Your task to perform on an android device: Open the map Image 0: 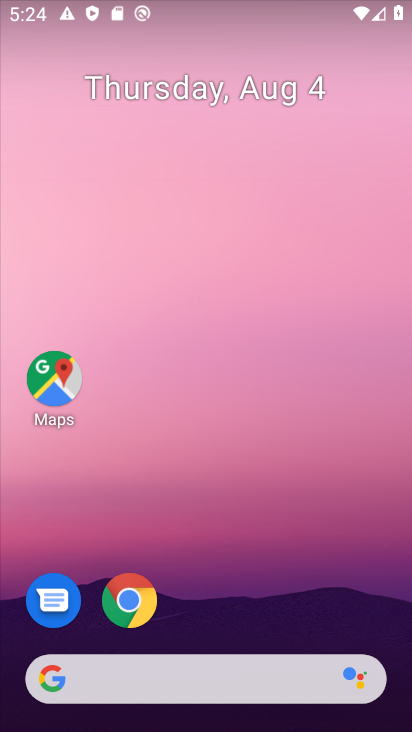
Step 0: click (62, 383)
Your task to perform on an android device: Open the map Image 1: 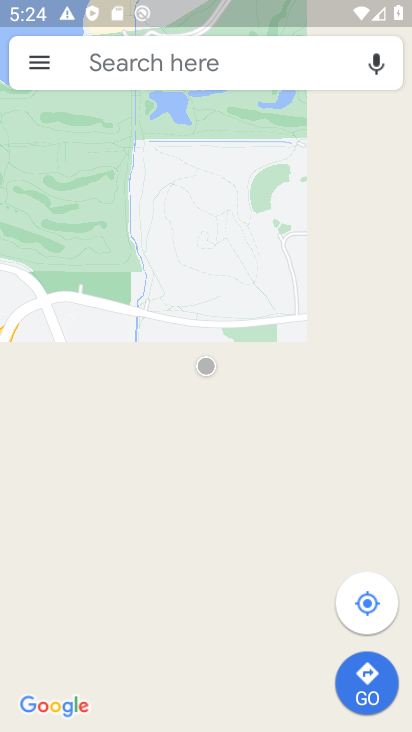
Step 1: task complete